Your task to perform on an android device: Open CNN.com Image 0: 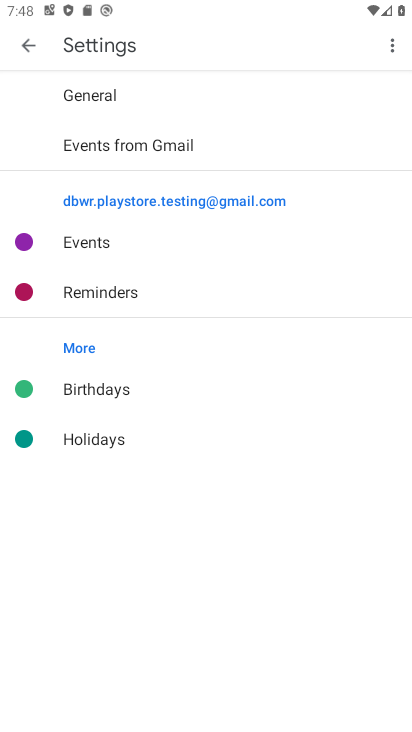
Step 0: drag from (355, 594) to (317, 329)
Your task to perform on an android device: Open CNN.com Image 1: 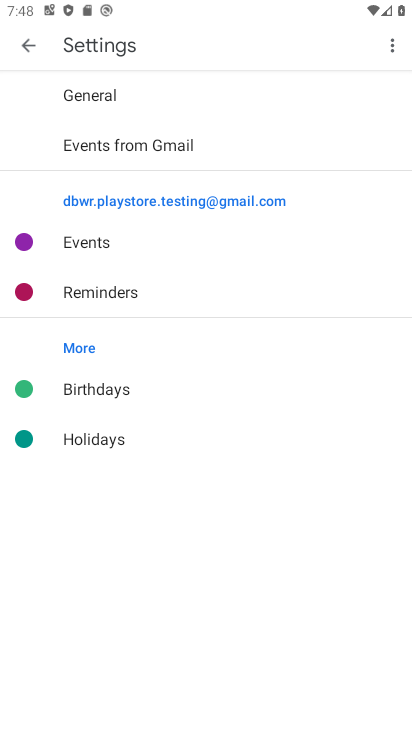
Step 1: press back button
Your task to perform on an android device: Open CNN.com Image 2: 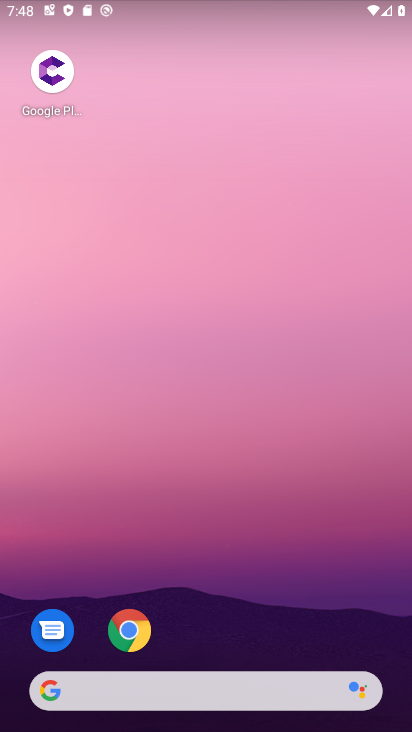
Step 2: drag from (276, 559) to (258, 47)
Your task to perform on an android device: Open CNN.com Image 3: 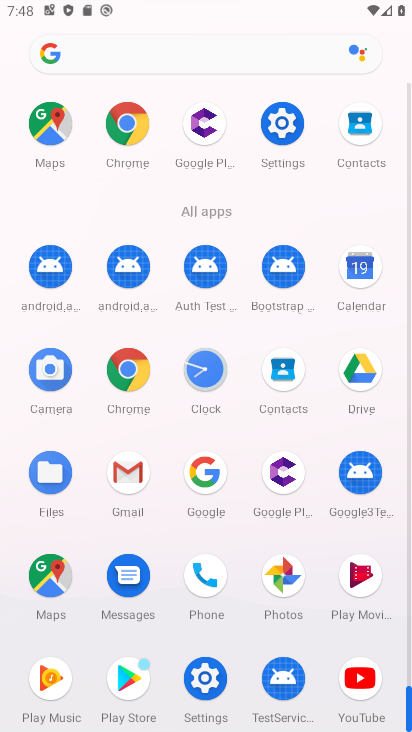
Step 3: click (128, 366)
Your task to perform on an android device: Open CNN.com Image 4: 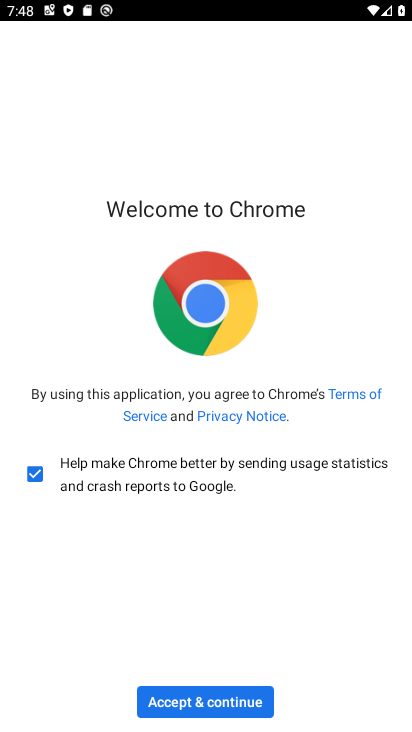
Step 4: click (178, 702)
Your task to perform on an android device: Open CNN.com Image 5: 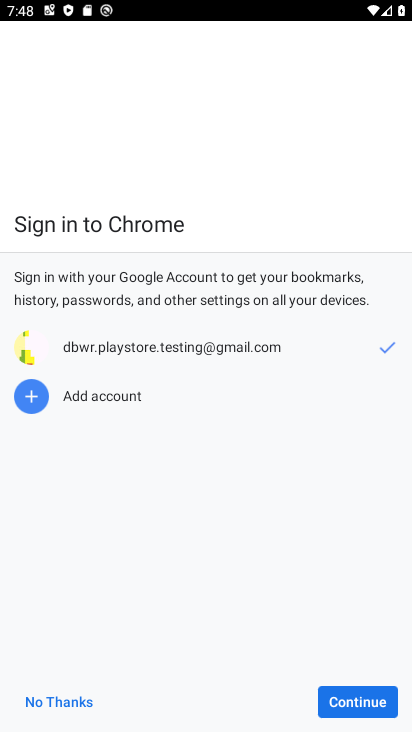
Step 5: click (352, 706)
Your task to perform on an android device: Open CNN.com Image 6: 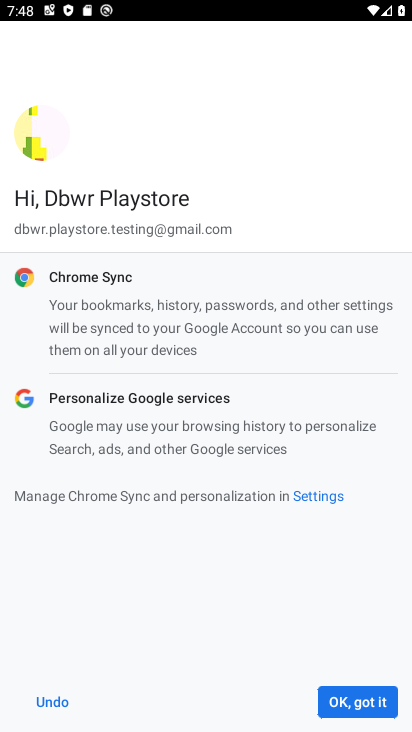
Step 6: click (352, 706)
Your task to perform on an android device: Open CNN.com Image 7: 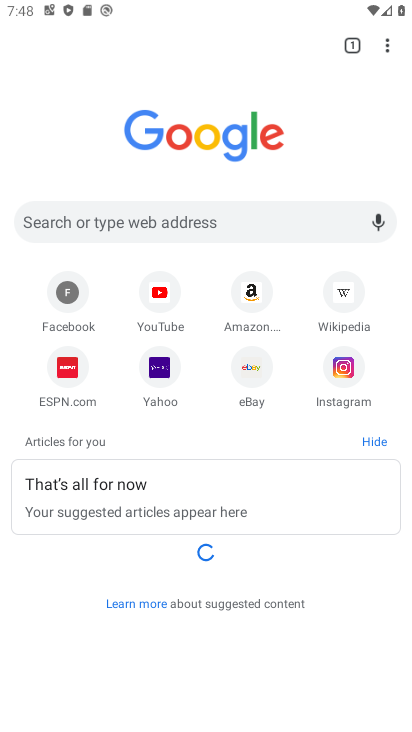
Step 7: click (177, 224)
Your task to perform on an android device: Open CNN.com Image 8: 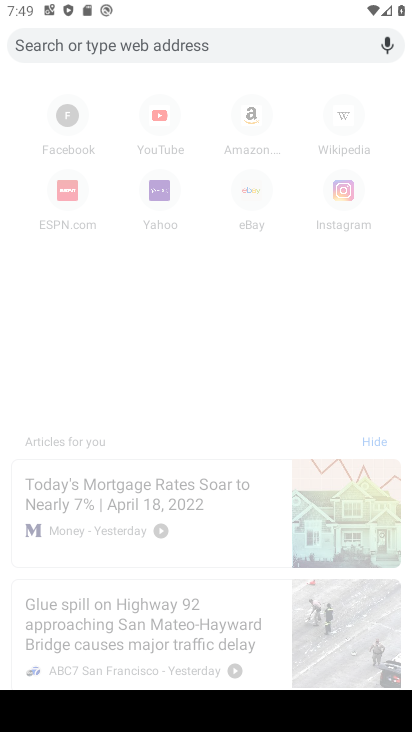
Step 8: type "CNN.com"
Your task to perform on an android device: Open CNN.com Image 9: 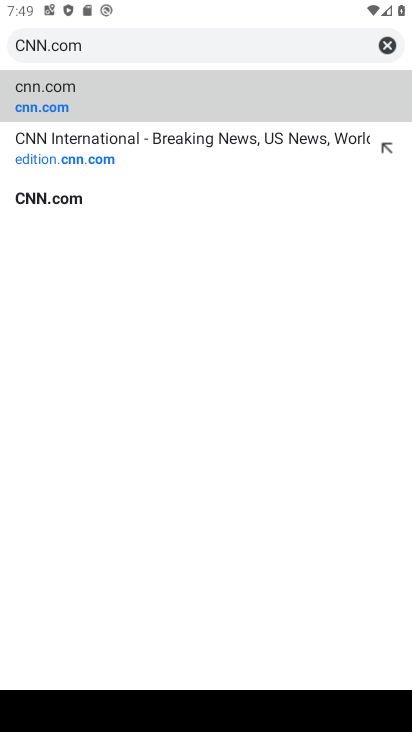
Step 9: click (150, 94)
Your task to perform on an android device: Open CNN.com Image 10: 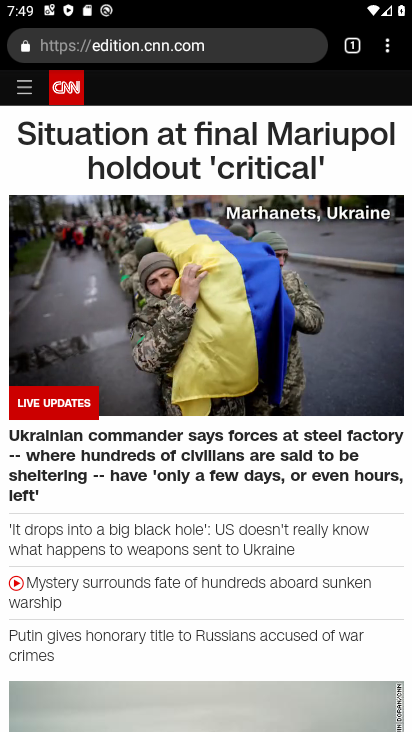
Step 10: task complete